Your task to perform on an android device: turn smart compose on in the gmail app Image 0: 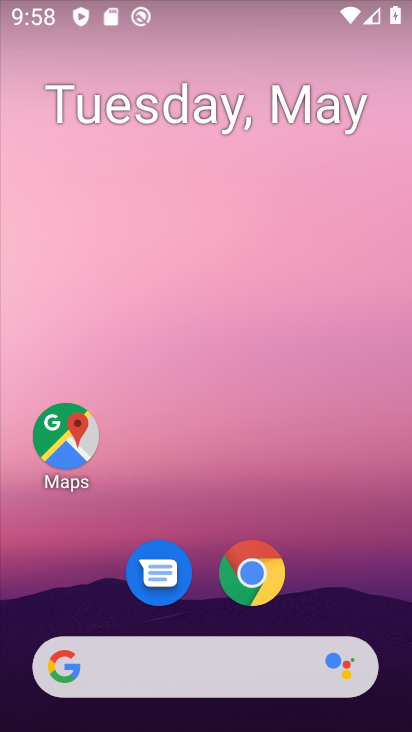
Step 0: drag from (355, 610) to (277, 160)
Your task to perform on an android device: turn smart compose on in the gmail app Image 1: 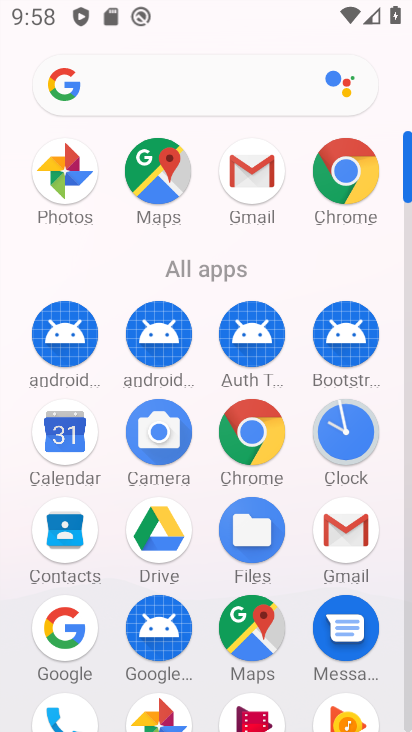
Step 1: click (340, 529)
Your task to perform on an android device: turn smart compose on in the gmail app Image 2: 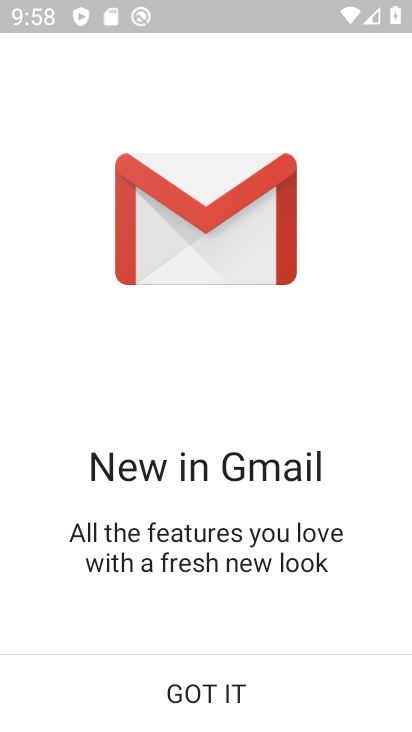
Step 2: click (219, 695)
Your task to perform on an android device: turn smart compose on in the gmail app Image 3: 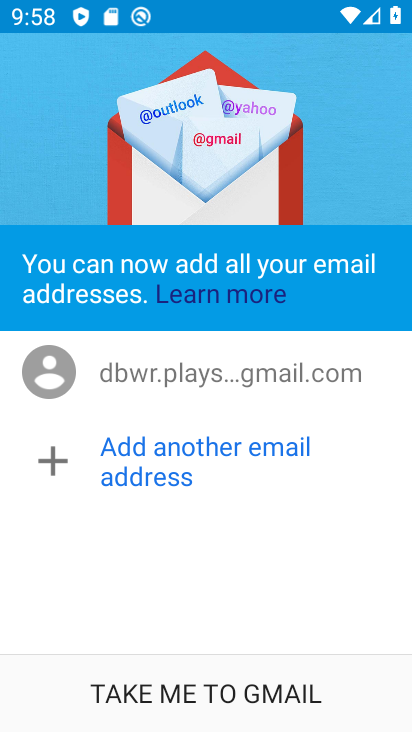
Step 3: click (220, 685)
Your task to perform on an android device: turn smart compose on in the gmail app Image 4: 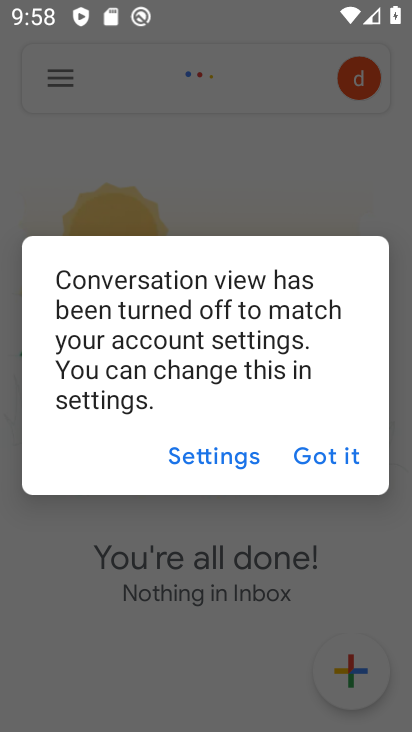
Step 4: click (323, 462)
Your task to perform on an android device: turn smart compose on in the gmail app Image 5: 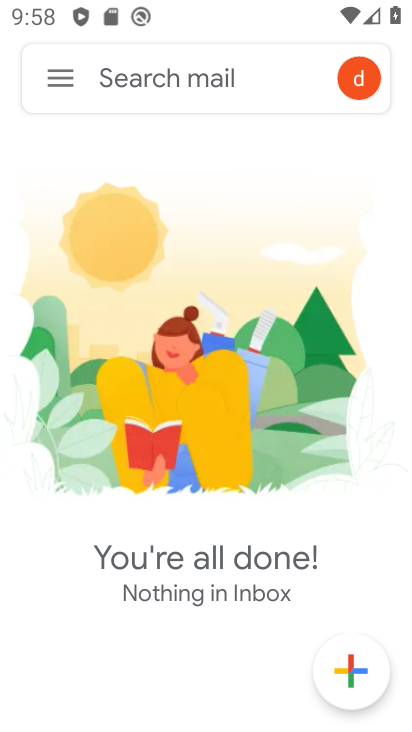
Step 5: click (59, 77)
Your task to perform on an android device: turn smart compose on in the gmail app Image 6: 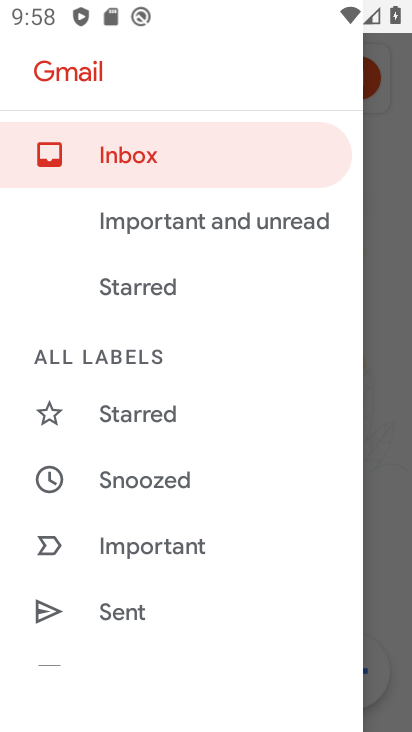
Step 6: drag from (244, 631) to (225, 287)
Your task to perform on an android device: turn smart compose on in the gmail app Image 7: 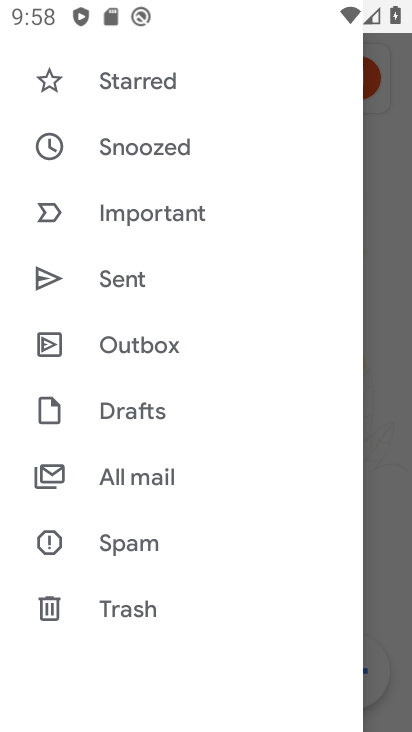
Step 7: drag from (196, 613) to (202, 193)
Your task to perform on an android device: turn smart compose on in the gmail app Image 8: 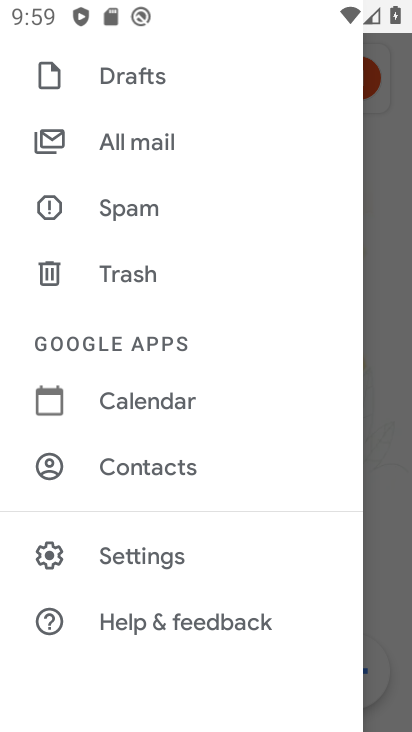
Step 8: click (127, 559)
Your task to perform on an android device: turn smart compose on in the gmail app Image 9: 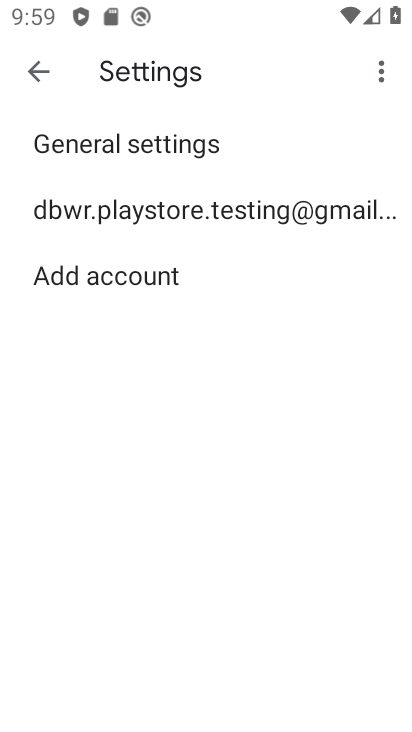
Step 9: click (225, 205)
Your task to perform on an android device: turn smart compose on in the gmail app Image 10: 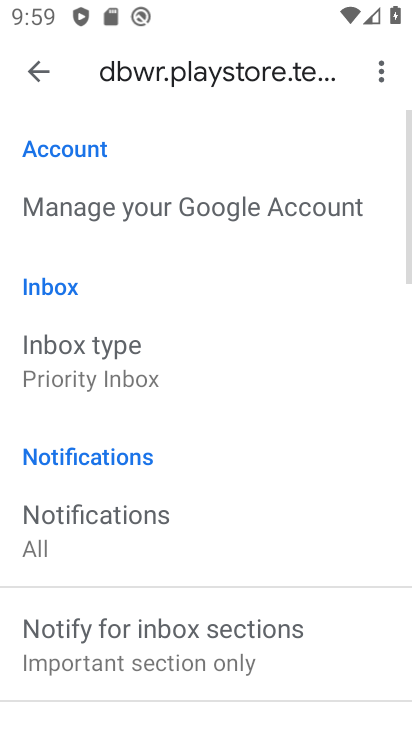
Step 10: click (285, 243)
Your task to perform on an android device: turn smart compose on in the gmail app Image 11: 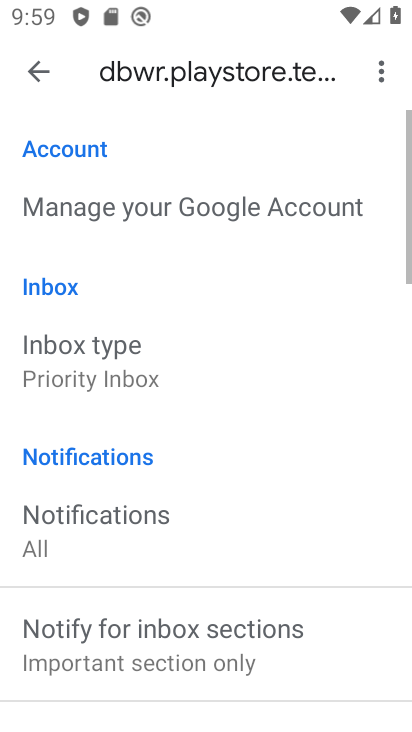
Step 11: task complete